Your task to perform on an android device: stop showing notifications on the lock screen Image 0: 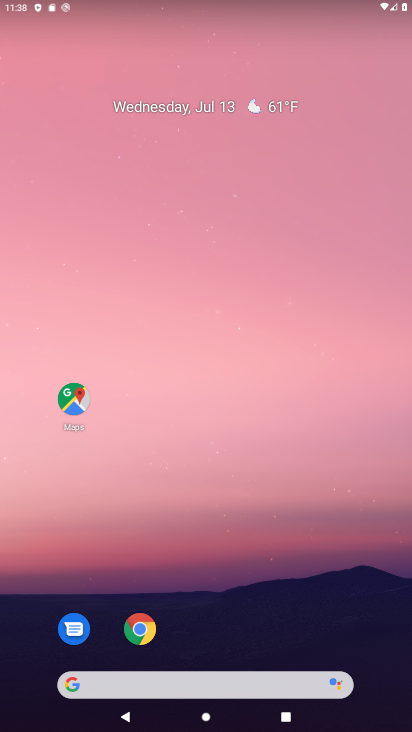
Step 0: drag from (193, 652) to (168, 288)
Your task to perform on an android device: stop showing notifications on the lock screen Image 1: 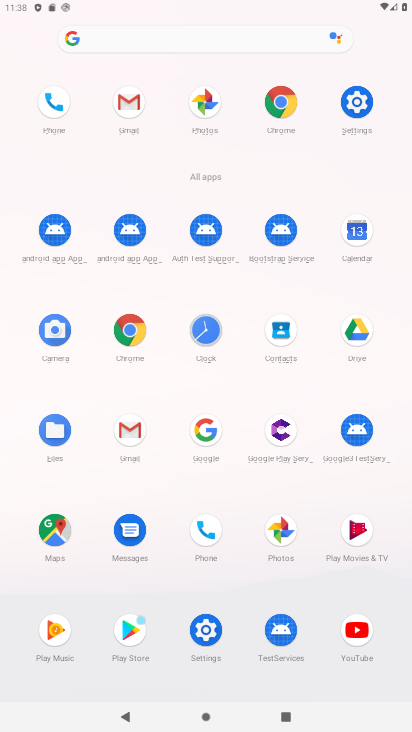
Step 1: click (348, 105)
Your task to perform on an android device: stop showing notifications on the lock screen Image 2: 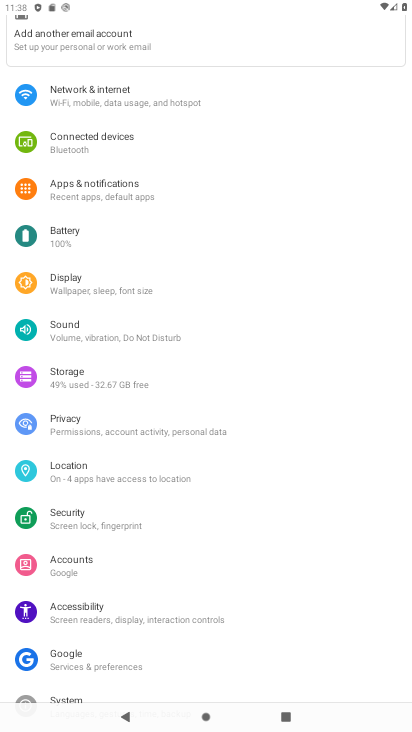
Step 2: click (149, 184)
Your task to perform on an android device: stop showing notifications on the lock screen Image 3: 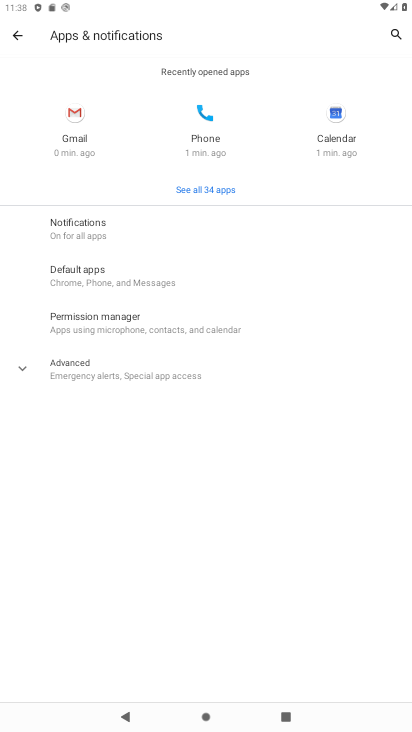
Step 3: click (51, 372)
Your task to perform on an android device: stop showing notifications on the lock screen Image 4: 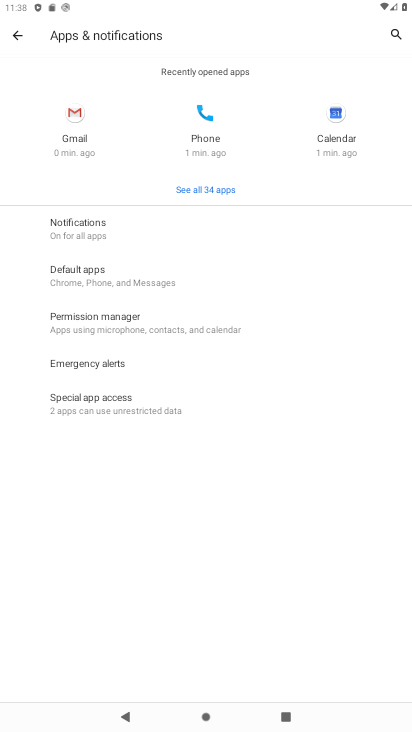
Step 4: click (64, 231)
Your task to perform on an android device: stop showing notifications on the lock screen Image 5: 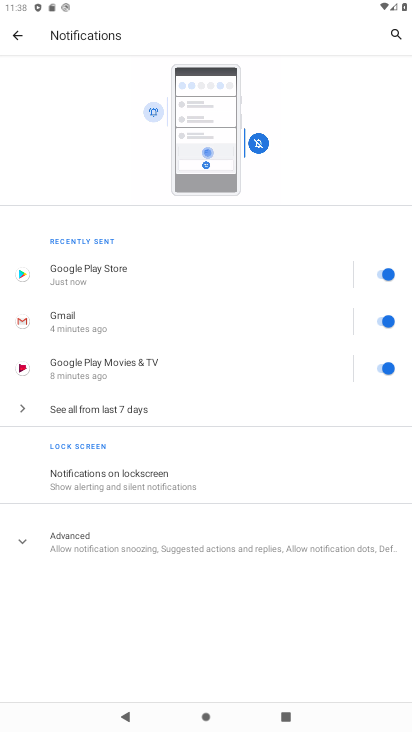
Step 5: click (74, 473)
Your task to perform on an android device: stop showing notifications on the lock screen Image 6: 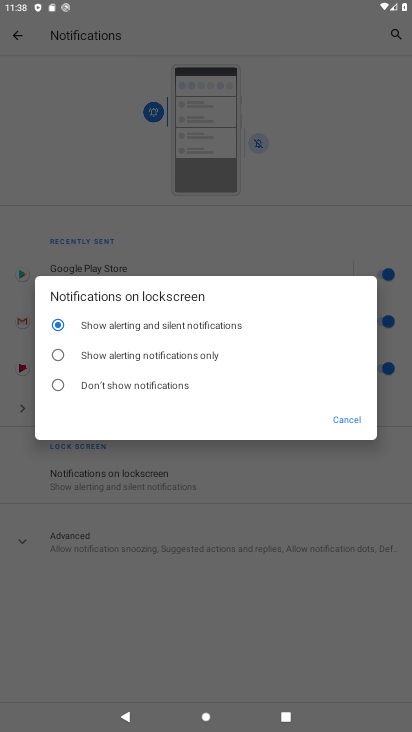
Step 6: click (57, 385)
Your task to perform on an android device: stop showing notifications on the lock screen Image 7: 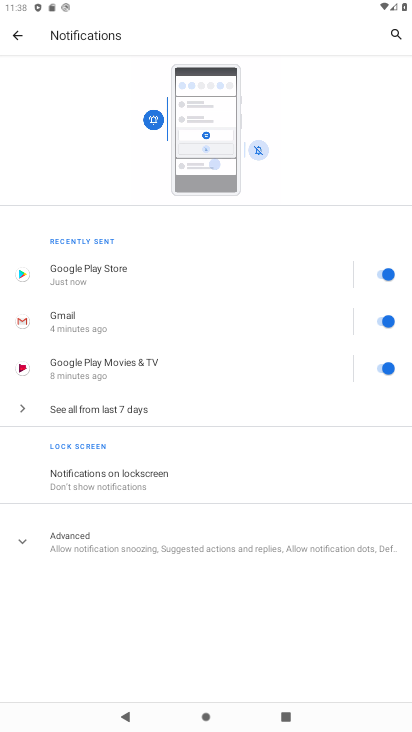
Step 7: task complete